Your task to perform on an android device: turn off location Image 0: 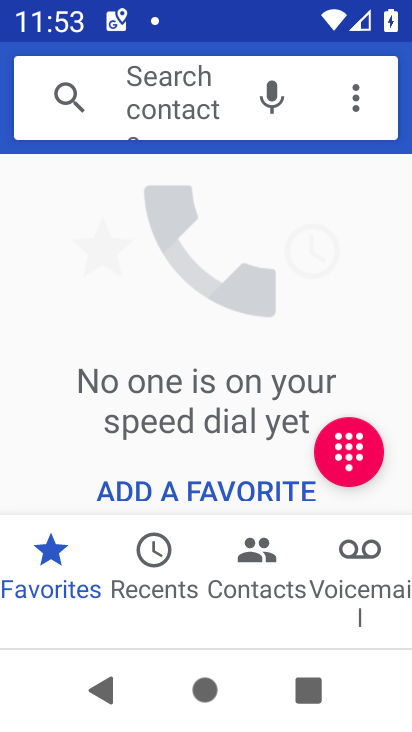
Step 0: press home button
Your task to perform on an android device: turn off location Image 1: 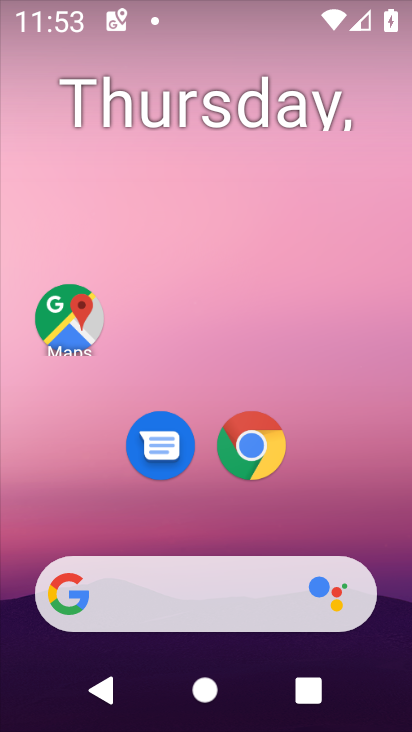
Step 1: drag from (309, 7) to (280, 399)
Your task to perform on an android device: turn off location Image 2: 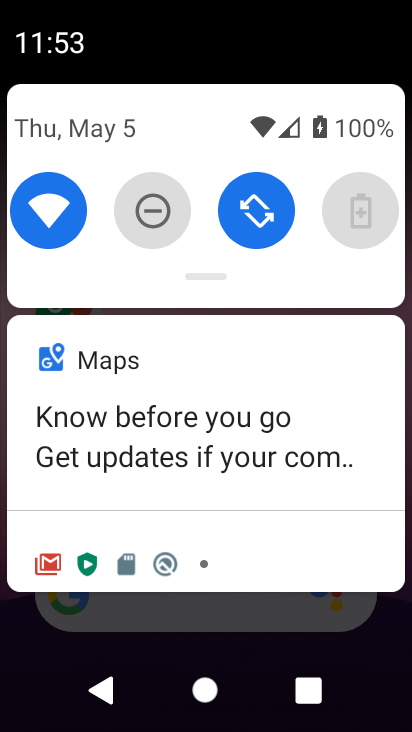
Step 2: drag from (199, 276) to (214, 542)
Your task to perform on an android device: turn off location Image 3: 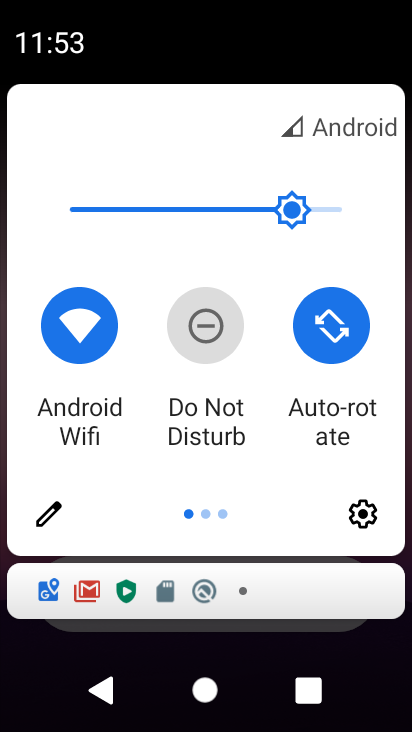
Step 3: click (42, 527)
Your task to perform on an android device: turn off location Image 4: 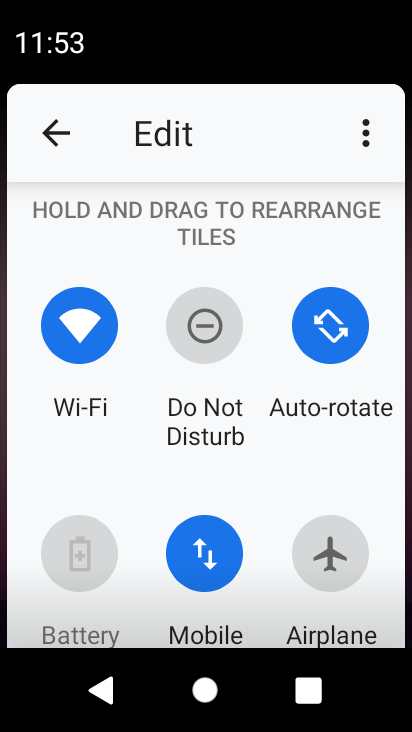
Step 4: drag from (254, 593) to (251, 197)
Your task to perform on an android device: turn off location Image 5: 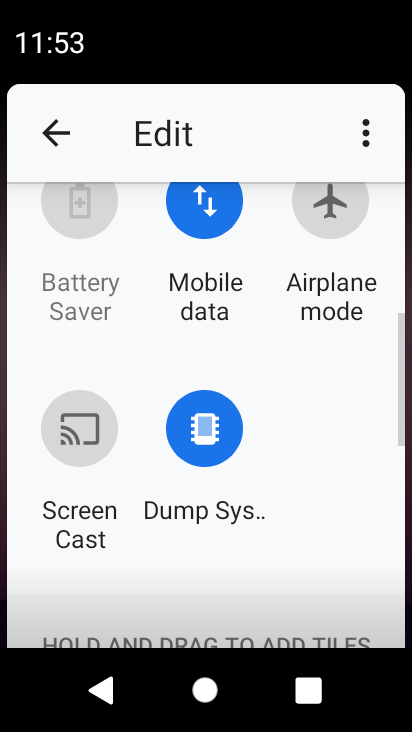
Step 5: drag from (273, 576) to (256, 320)
Your task to perform on an android device: turn off location Image 6: 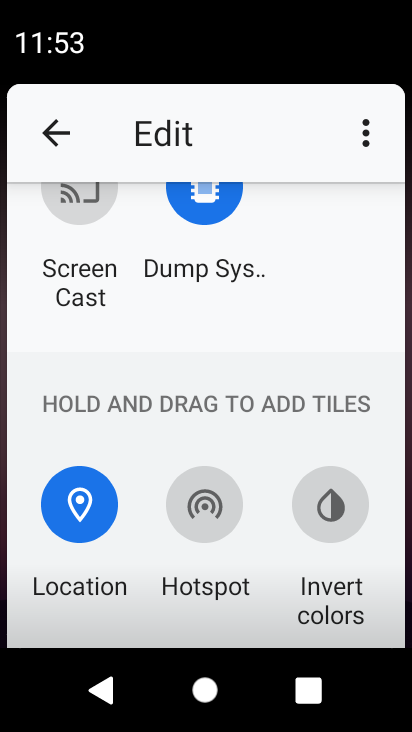
Step 6: drag from (85, 494) to (271, 347)
Your task to perform on an android device: turn off location Image 7: 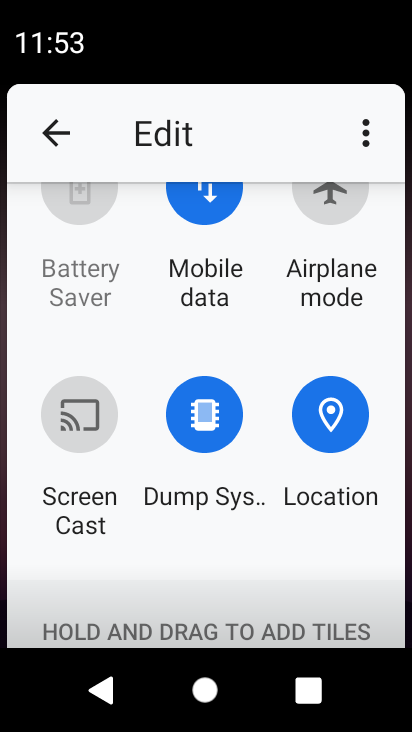
Step 7: click (59, 125)
Your task to perform on an android device: turn off location Image 8: 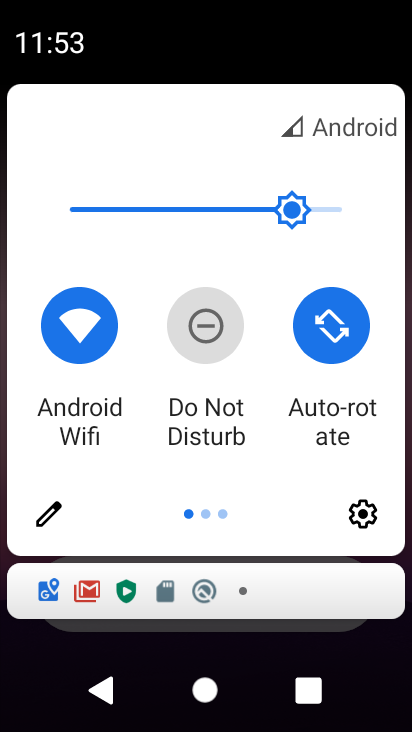
Step 8: click (239, 496)
Your task to perform on an android device: turn off location Image 9: 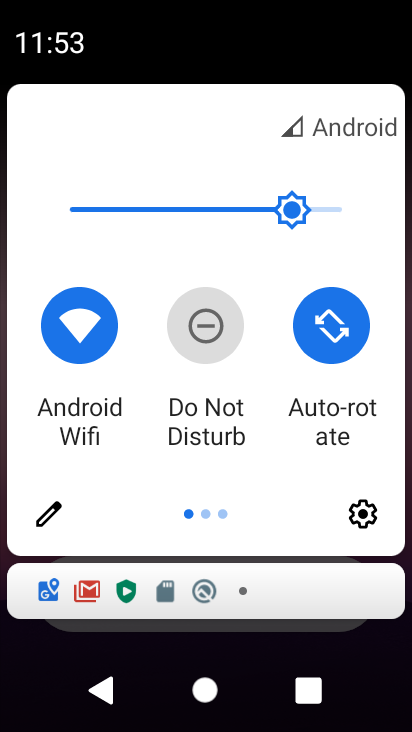
Step 9: drag from (316, 343) to (27, 332)
Your task to perform on an android device: turn off location Image 10: 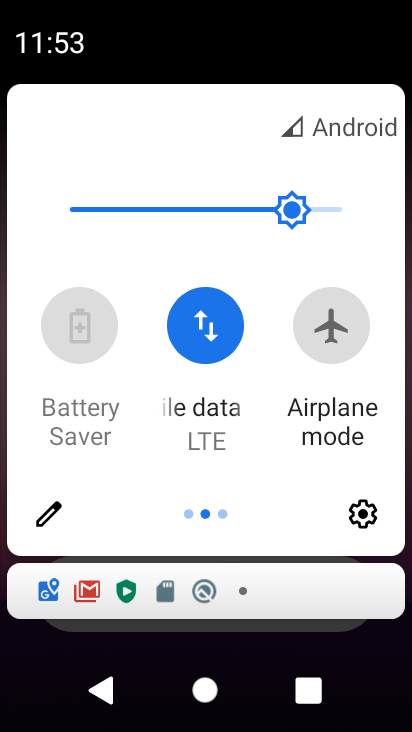
Step 10: drag from (357, 344) to (0, 321)
Your task to perform on an android device: turn off location Image 11: 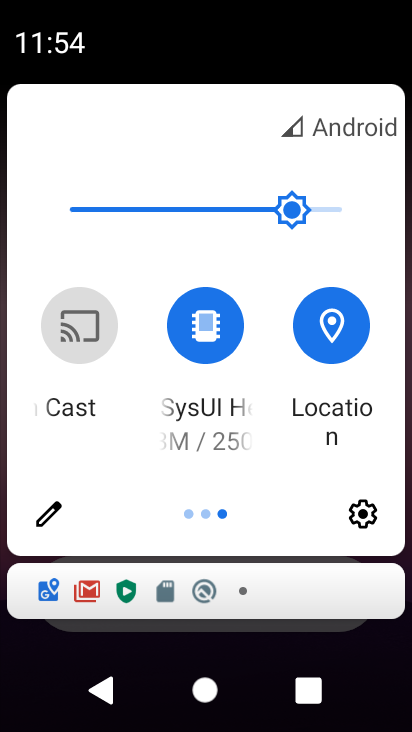
Step 11: click (336, 345)
Your task to perform on an android device: turn off location Image 12: 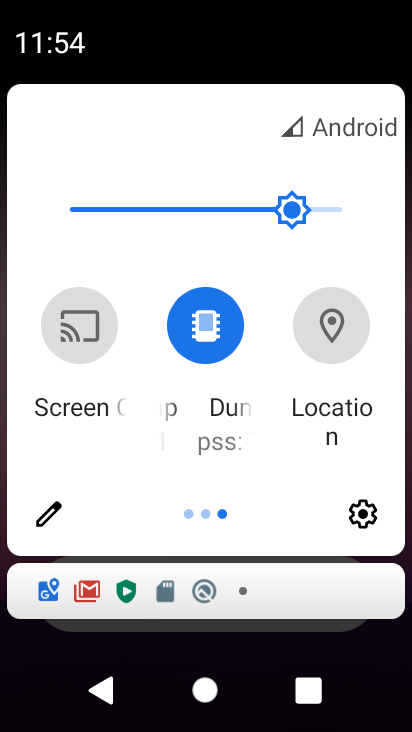
Step 12: task complete